Your task to perform on an android device: toggle airplane mode Image 0: 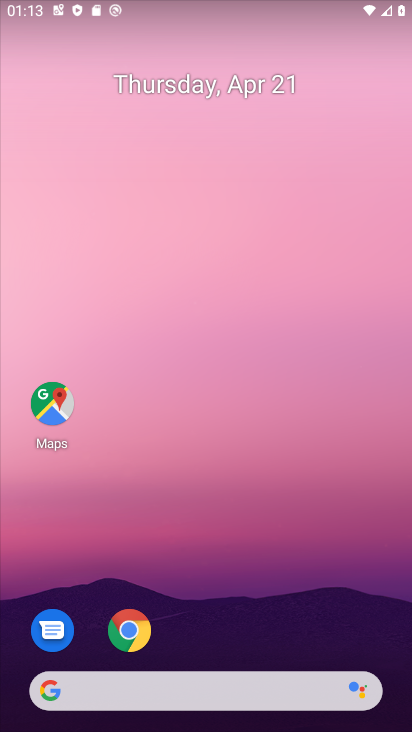
Step 0: drag from (250, 605) to (191, 190)
Your task to perform on an android device: toggle airplane mode Image 1: 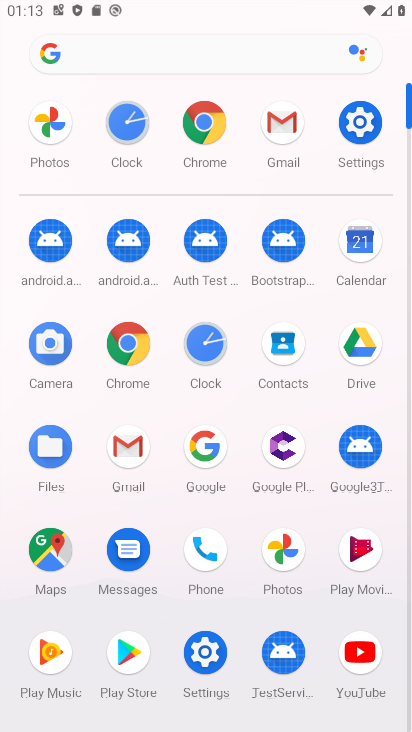
Step 1: click (367, 147)
Your task to perform on an android device: toggle airplane mode Image 2: 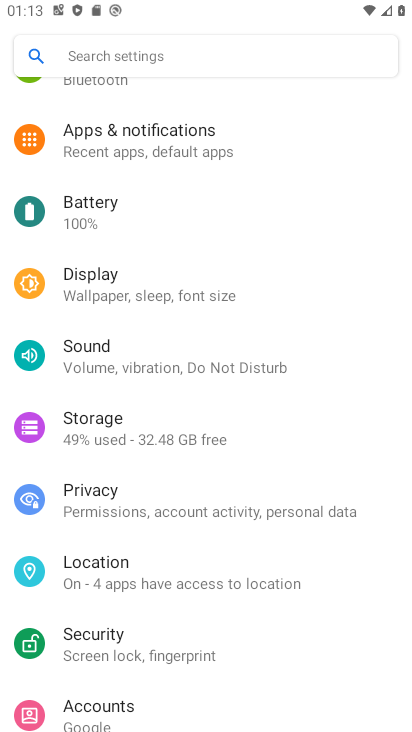
Step 2: drag from (187, 185) to (143, 677)
Your task to perform on an android device: toggle airplane mode Image 3: 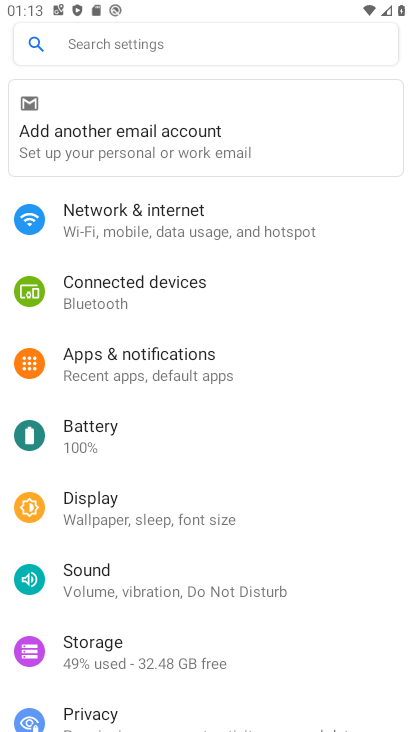
Step 3: click (211, 230)
Your task to perform on an android device: toggle airplane mode Image 4: 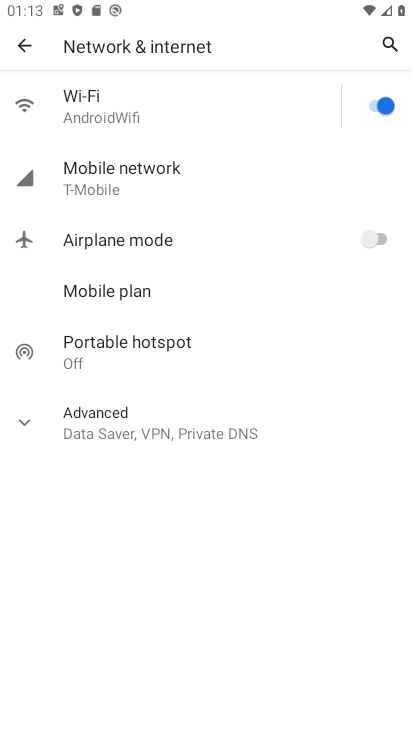
Step 4: click (355, 240)
Your task to perform on an android device: toggle airplane mode Image 5: 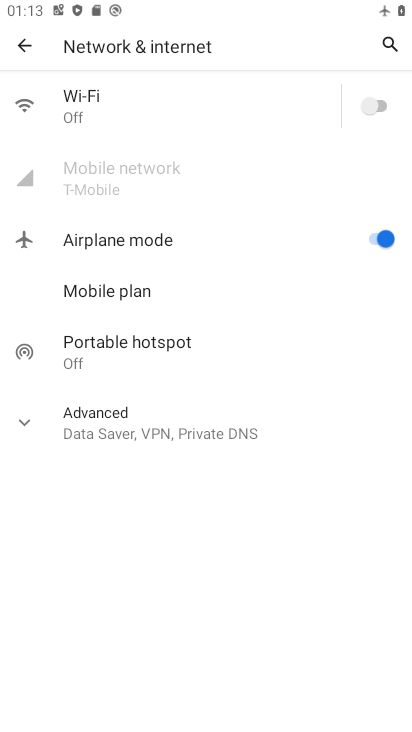
Step 5: task complete